Your task to perform on an android device: open chrome privacy settings Image 0: 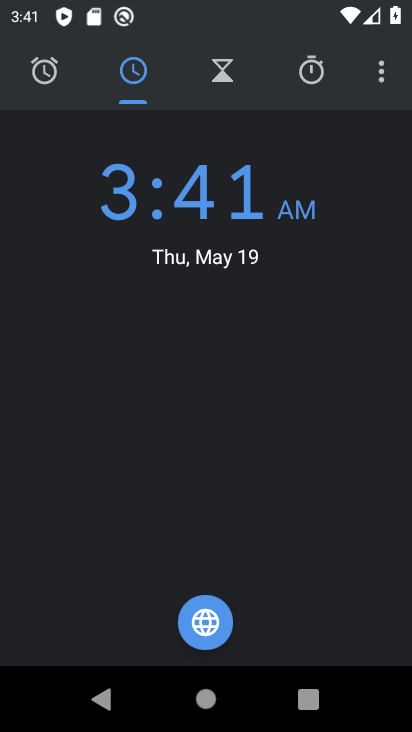
Step 0: press home button
Your task to perform on an android device: open chrome privacy settings Image 1: 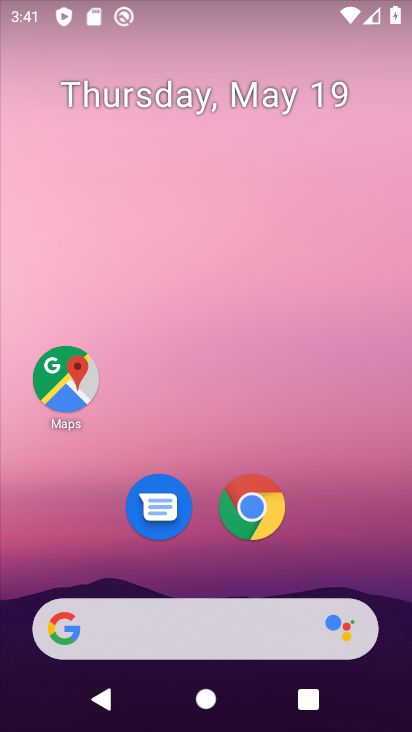
Step 1: click (265, 501)
Your task to perform on an android device: open chrome privacy settings Image 2: 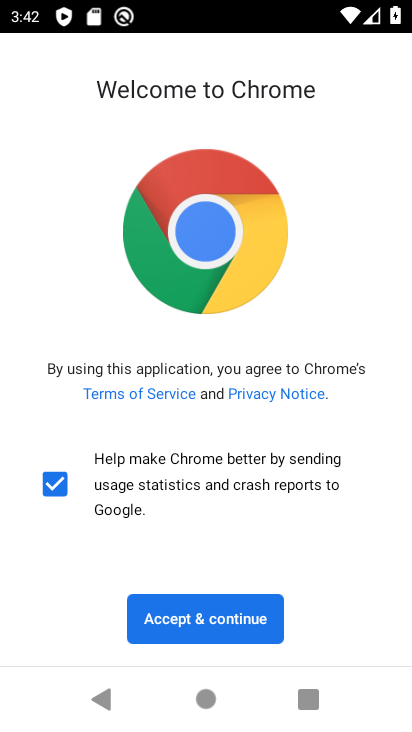
Step 2: click (182, 607)
Your task to perform on an android device: open chrome privacy settings Image 3: 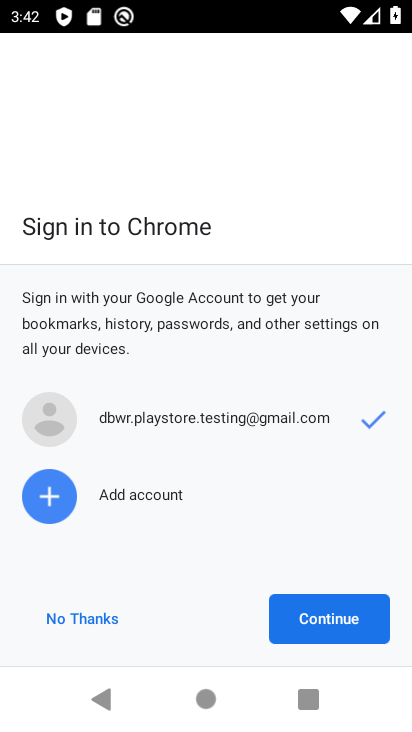
Step 3: click (303, 625)
Your task to perform on an android device: open chrome privacy settings Image 4: 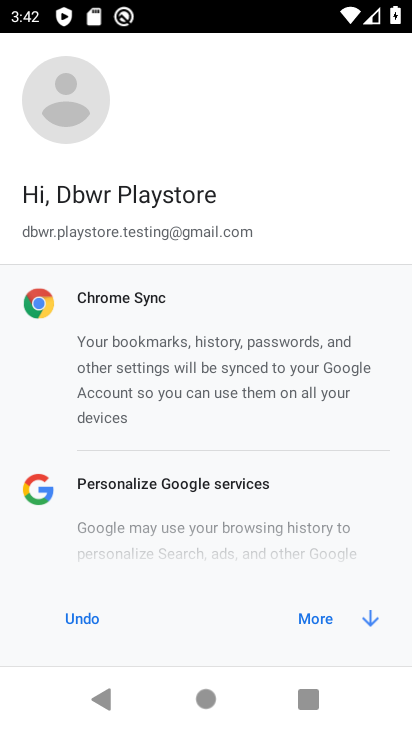
Step 4: click (324, 621)
Your task to perform on an android device: open chrome privacy settings Image 5: 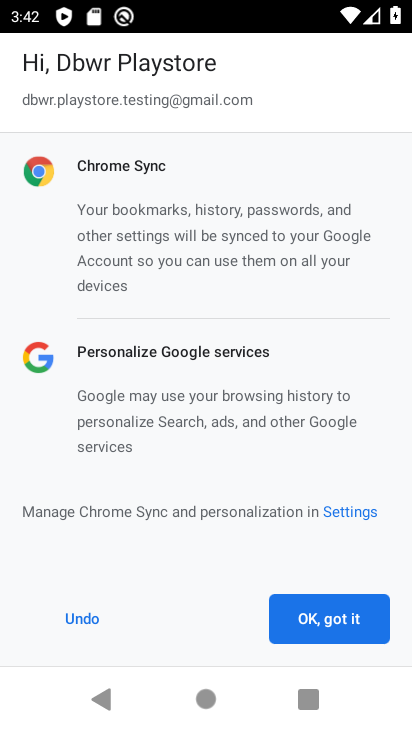
Step 5: click (324, 621)
Your task to perform on an android device: open chrome privacy settings Image 6: 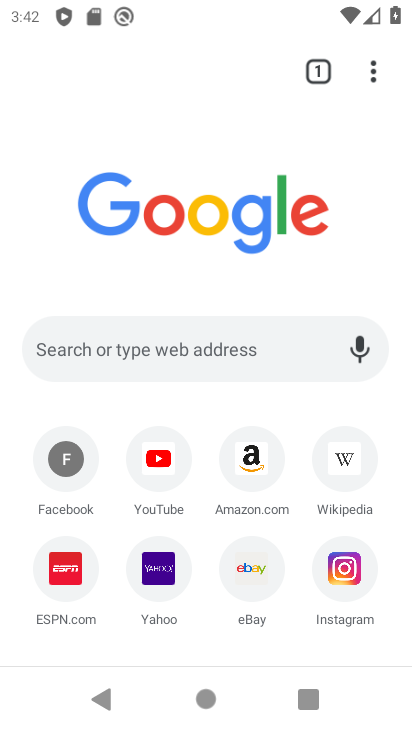
Step 6: click (371, 65)
Your task to perform on an android device: open chrome privacy settings Image 7: 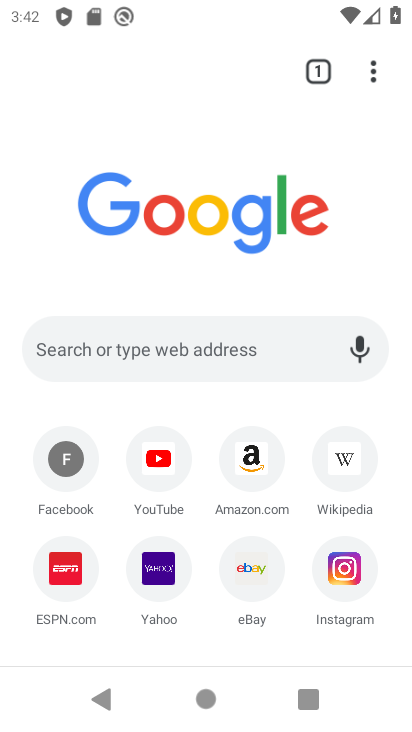
Step 7: click (374, 70)
Your task to perform on an android device: open chrome privacy settings Image 8: 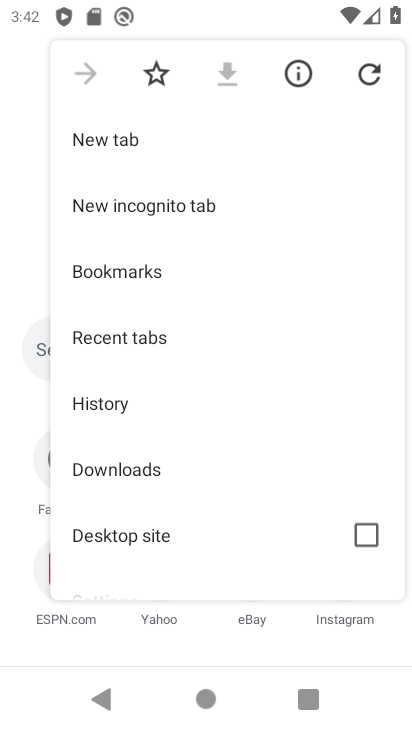
Step 8: drag from (212, 548) to (230, 412)
Your task to perform on an android device: open chrome privacy settings Image 9: 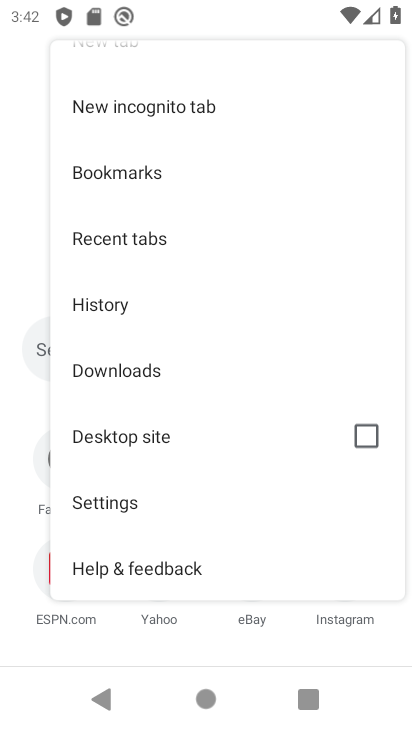
Step 9: click (113, 503)
Your task to perform on an android device: open chrome privacy settings Image 10: 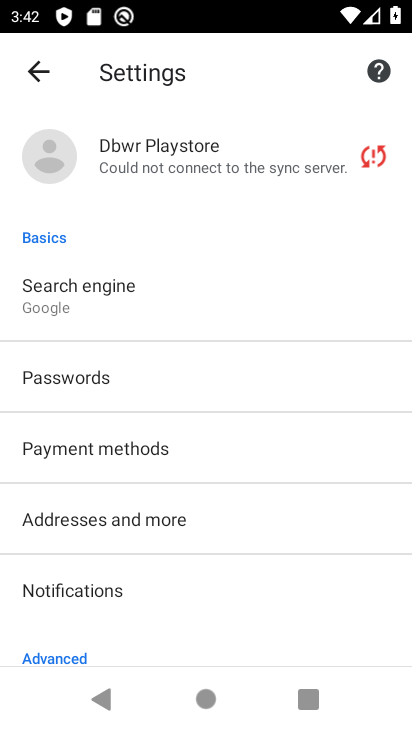
Step 10: click (214, 317)
Your task to perform on an android device: open chrome privacy settings Image 11: 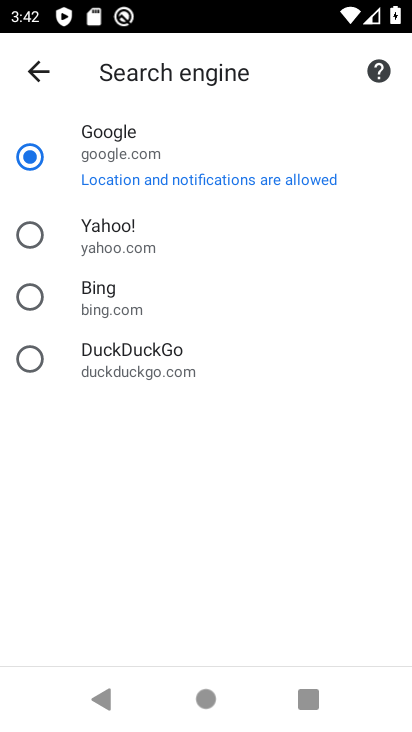
Step 11: click (32, 63)
Your task to perform on an android device: open chrome privacy settings Image 12: 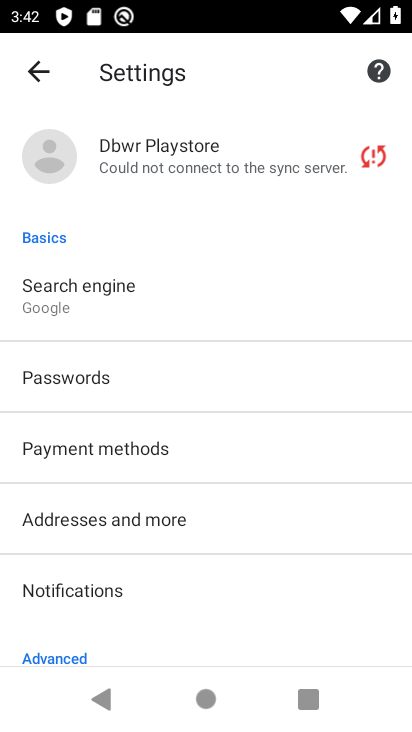
Step 12: drag from (223, 639) to (243, 353)
Your task to perform on an android device: open chrome privacy settings Image 13: 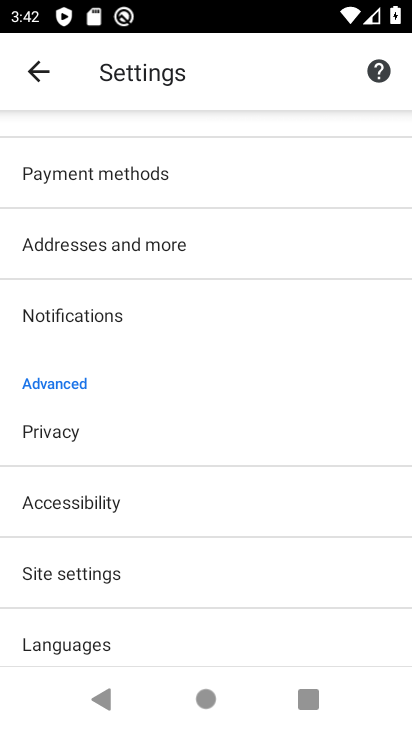
Step 13: click (89, 576)
Your task to perform on an android device: open chrome privacy settings Image 14: 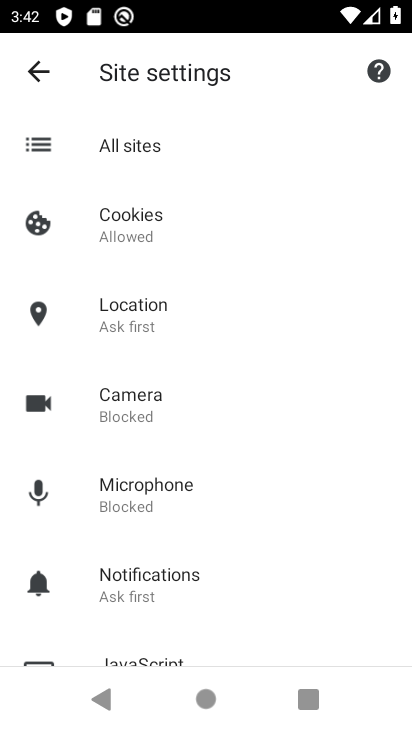
Step 14: click (32, 66)
Your task to perform on an android device: open chrome privacy settings Image 15: 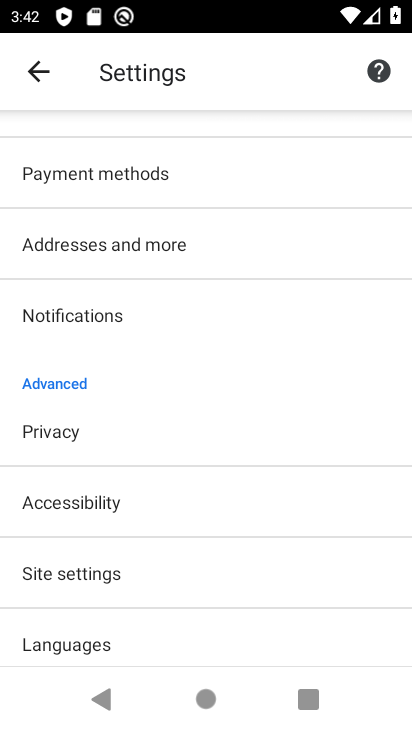
Step 15: click (38, 427)
Your task to perform on an android device: open chrome privacy settings Image 16: 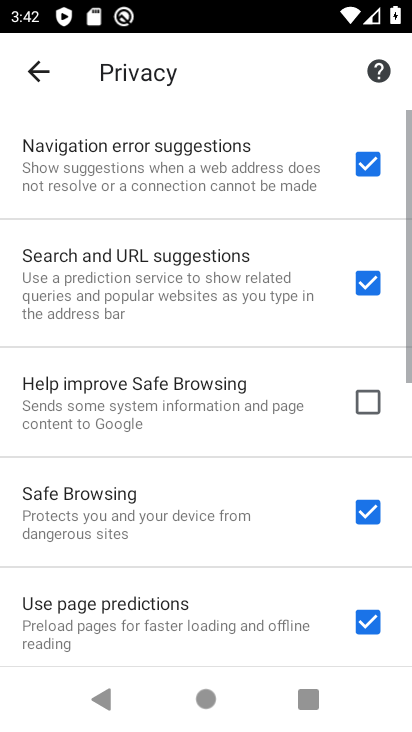
Step 16: task complete